Your task to perform on an android device: toggle improve location accuracy Image 0: 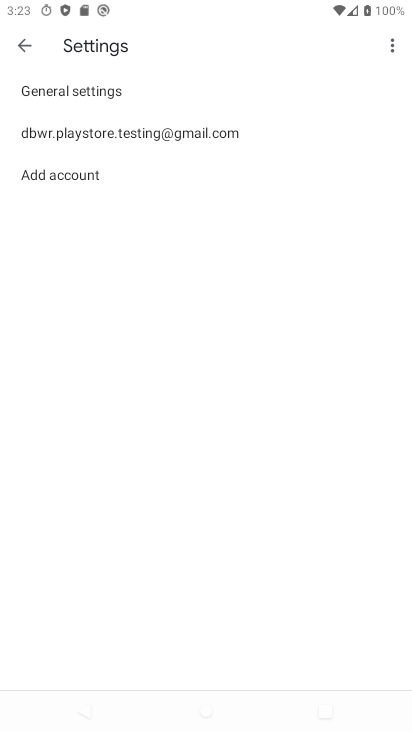
Step 0: press home button
Your task to perform on an android device: toggle improve location accuracy Image 1: 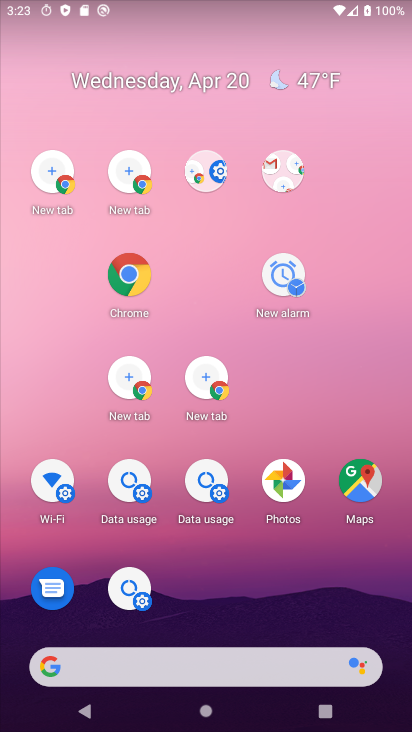
Step 1: click (147, 202)
Your task to perform on an android device: toggle improve location accuracy Image 2: 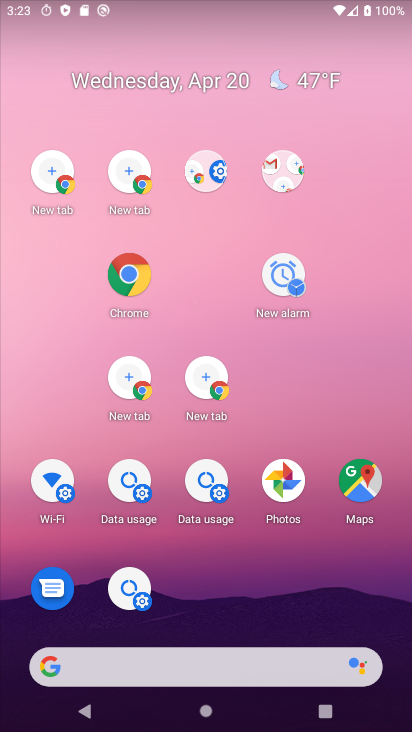
Step 2: drag from (121, 476) to (79, 200)
Your task to perform on an android device: toggle improve location accuracy Image 3: 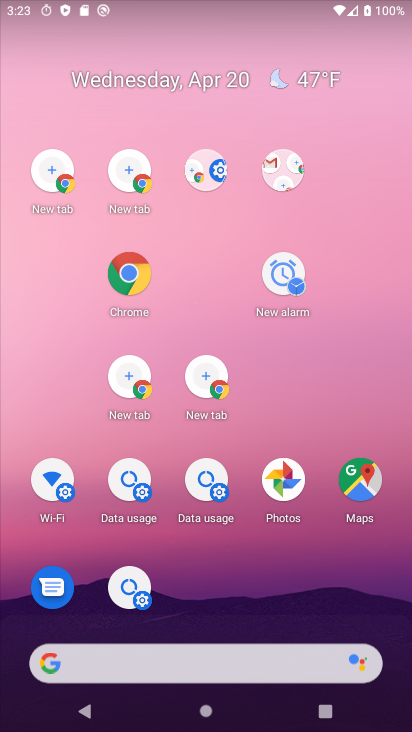
Step 3: drag from (279, 507) to (184, 153)
Your task to perform on an android device: toggle improve location accuracy Image 4: 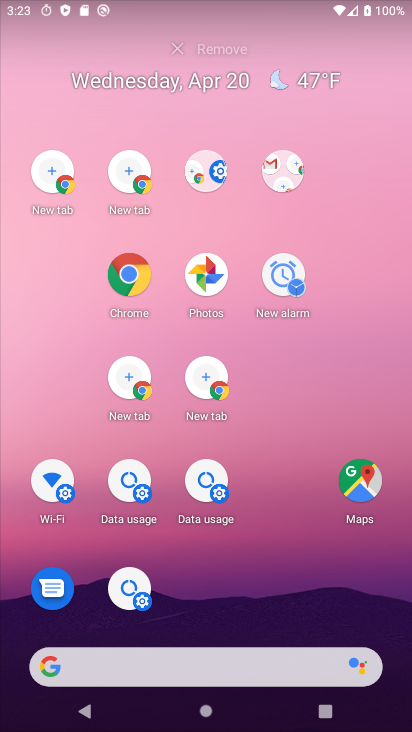
Step 4: drag from (121, 238) to (105, 189)
Your task to perform on an android device: toggle improve location accuracy Image 5: 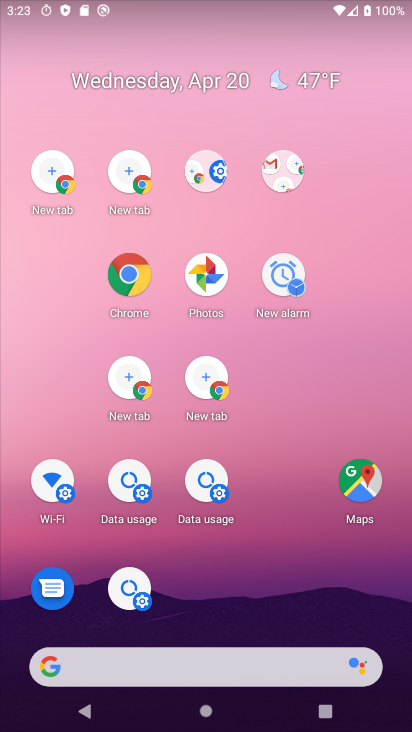
Step 5: drag from (272, 568) to (101, 213)
Your task to perform on an android device: toggle improve location accuracy Image 6: 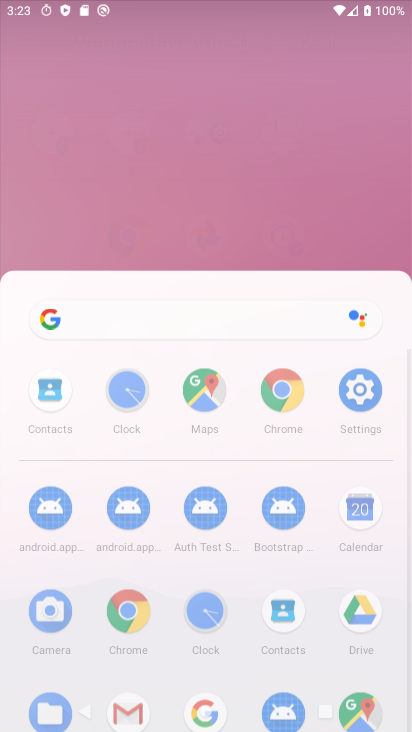
Step 6: click (201, 59)
Your task to perform on an android device: toggle improve location accuracy Image 7: 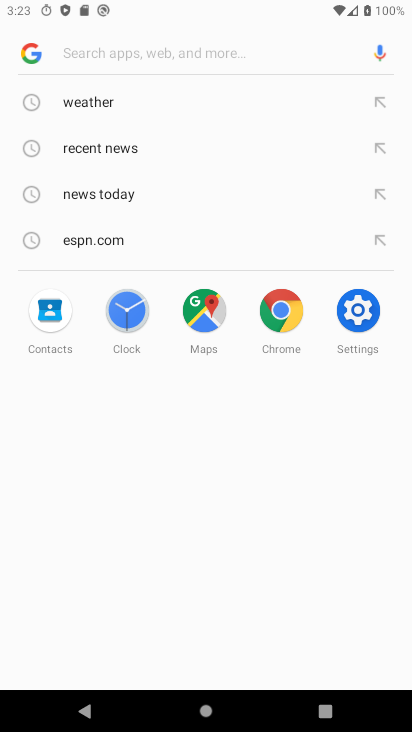
Step 7: click (125, 655)
Your task to perform on an android device: toggle improve location accuracy Image 8: 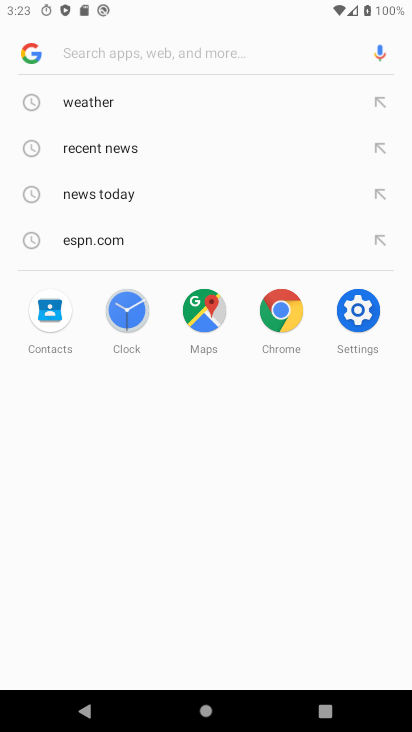
Step 8: click (349, 317)
Your task to perform on an android device: toggle improve location accuracy Image 9: 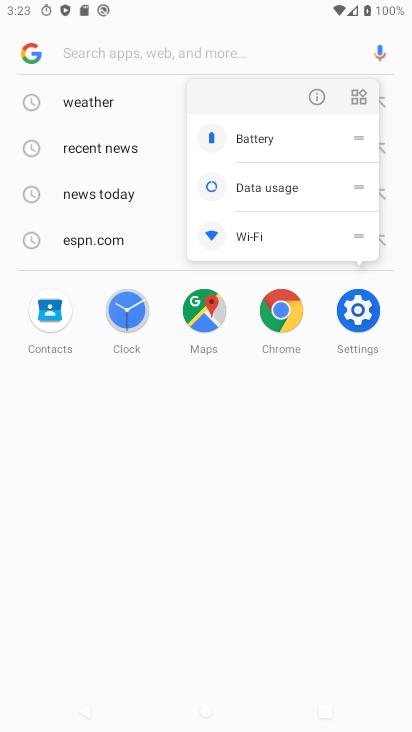
Step 9: click (349, 317)
Your task to perform on an android device: toggle improve location accuracy Image 10: 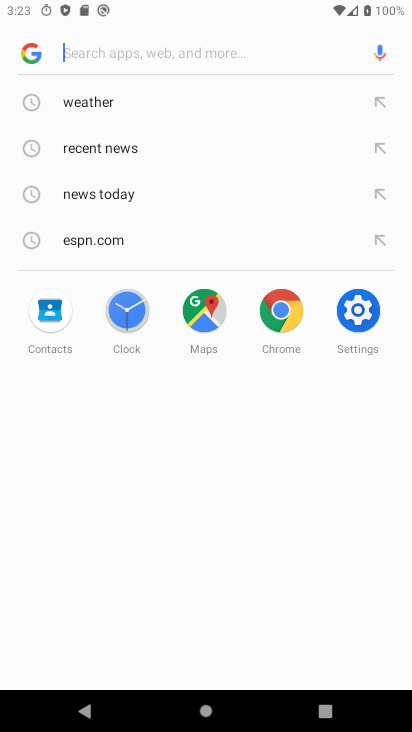
Step 10: click (349, 316)
Your task to perform on an android device: toggle improve location accuracy Image 11: 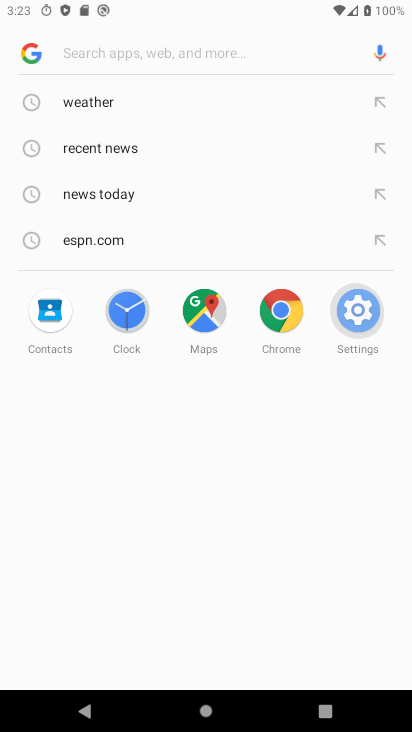
Step 11: click (349, 316)
Your task to perform on an android device: toggle improve location accuracy Image 12: 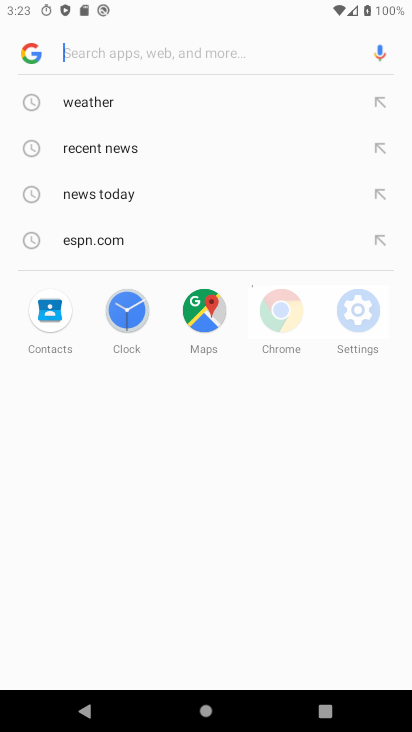
Step 12: click (353, 303)
Your task to perform on an android device: toggle improve location accuracy Image 13: 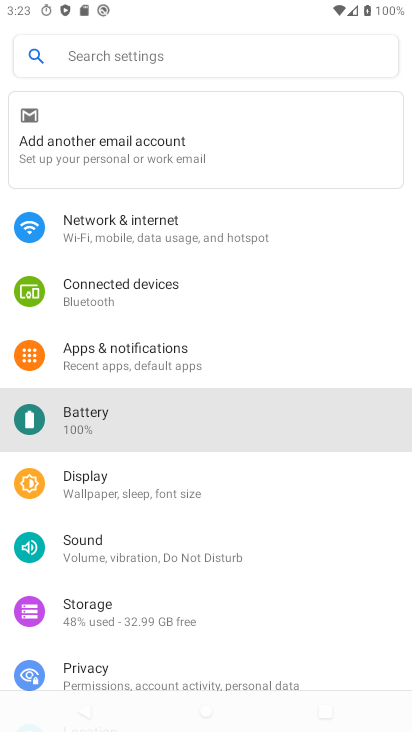
Step 13: click (351, 302)
Your task to perform on an android device: toggle improve location accuracy Image 14: 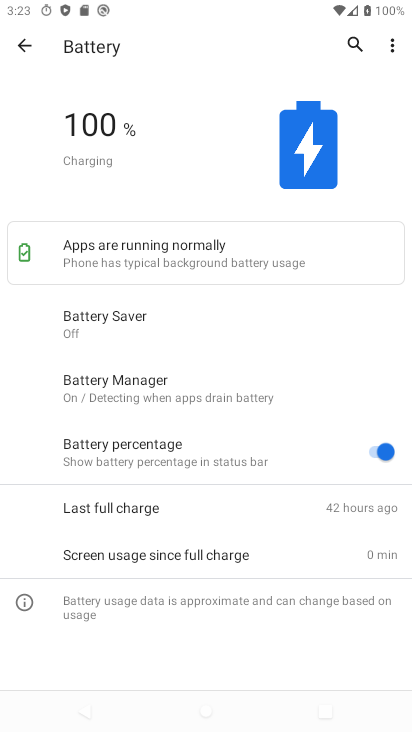
Step 14: click (119, 633)
Your task to perform on an android device: toggle improve location accuracy Image 15: 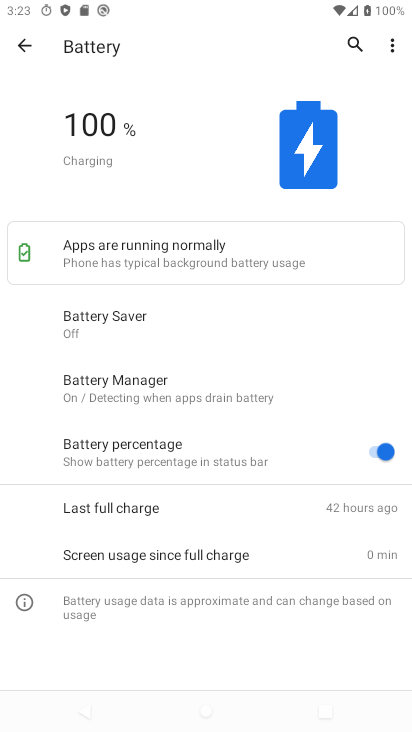
Step 15: click (28, 47)
Your task to perform on an android device: toggle improve location accuracy Image 16: 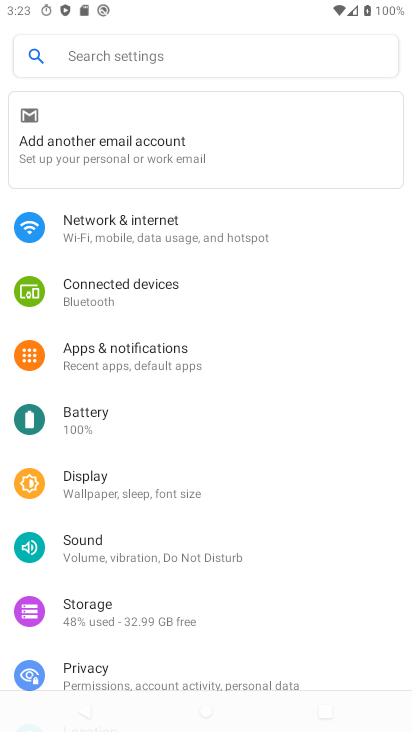
Step 16: drag from (155, 600) to (176, 220)
Your task to perform on an android device: toggle improve location accuracy Image 17: 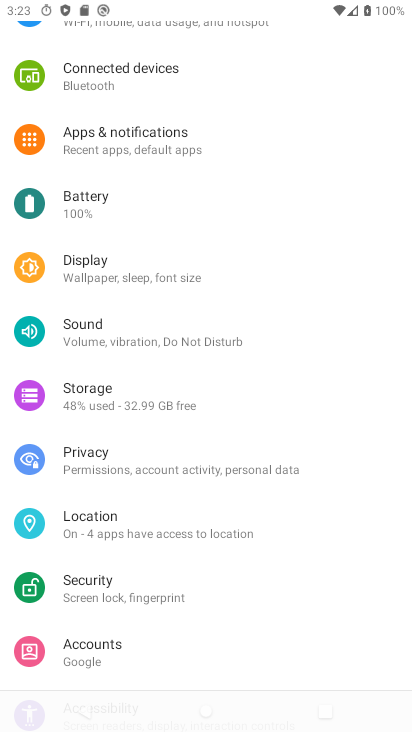
Step 17: click (95, 532)
Your task to perform on an android device: toggle improve location accuracy Image 18: 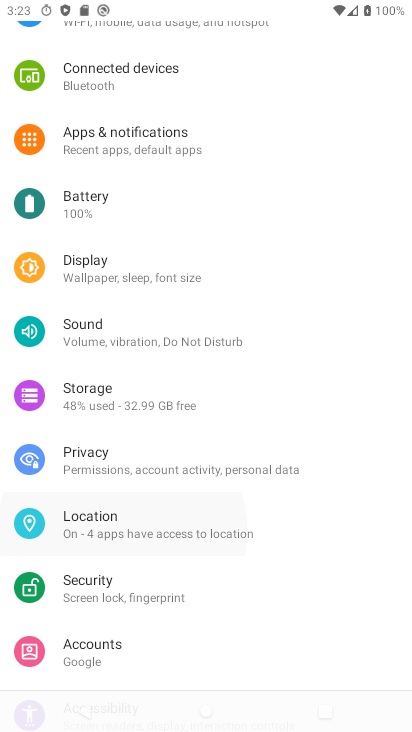
Step 18: click (95, 532)
Your task to perform on an android device: toggle improve location accuracy Image 19: 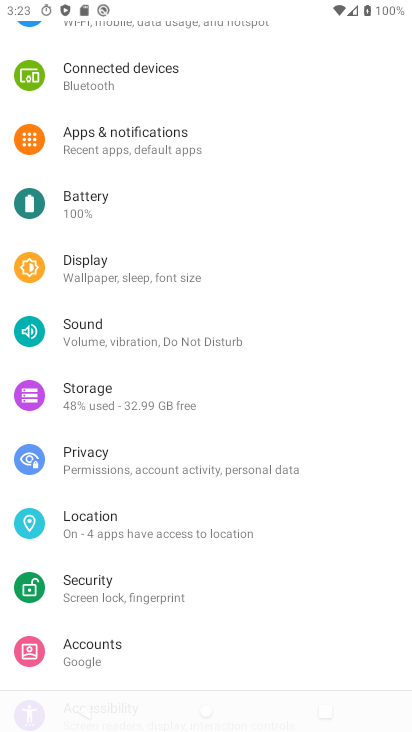
Step 19: click (95, 532)
Your task to perform on an android device: toggle improve location accuracy Image 20: 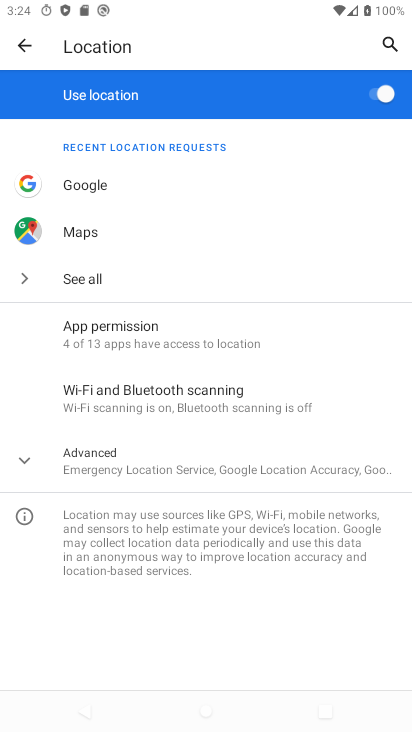
Step 20: click (385, 94)
Your task to perform on an android device: toggle improve location accuracy Image 21: 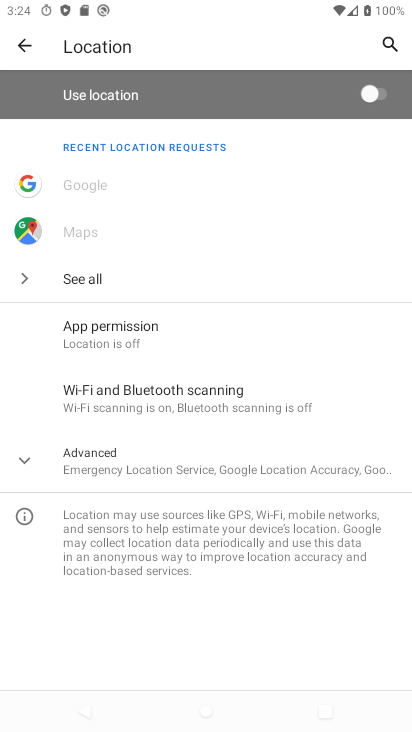
Step 21: task complete